Your task to perform on an android device: check data usage Image 0: 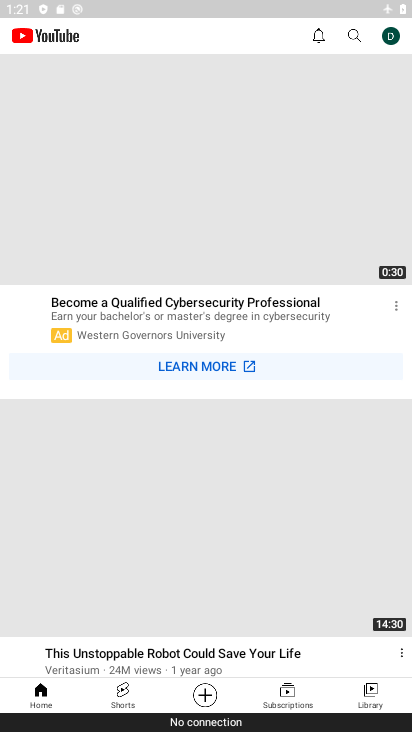
Step 0: press home button
Your task to perform on an android device: check data usage Image 1: 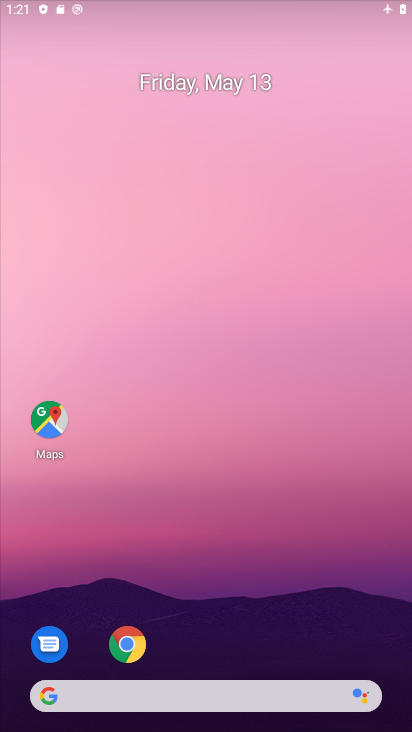
Step 1: drag from (231, 645) to (214, 211)
Your task to perform on an android device: check data usage Image 2: 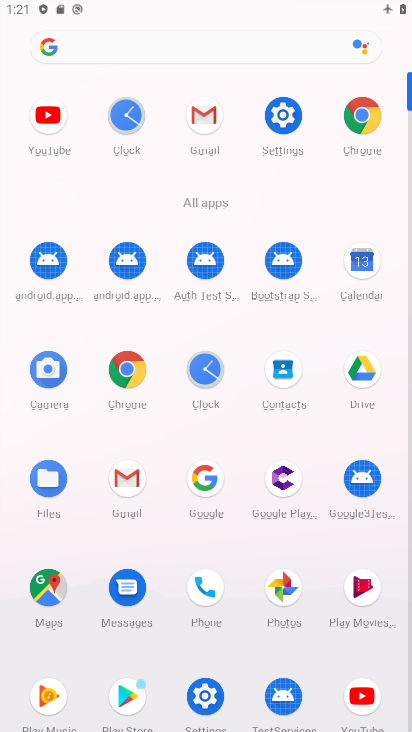
Step 2: click (283, 115)
Your task to perform on an android device: check data usage Image 3: 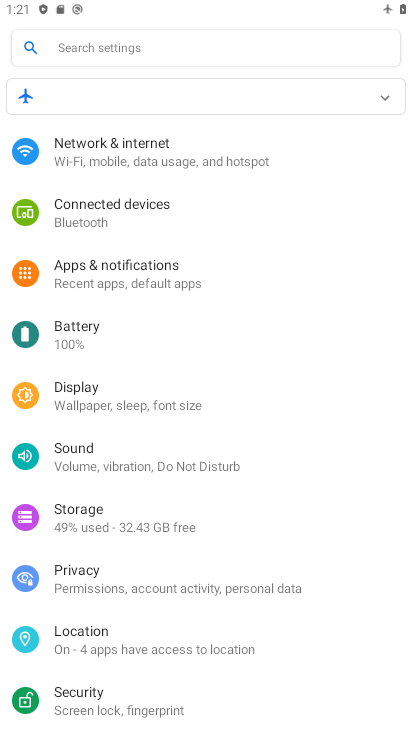
Step 3: click (147, 169)
Your task to perform on an android device: check data usage Image 4: 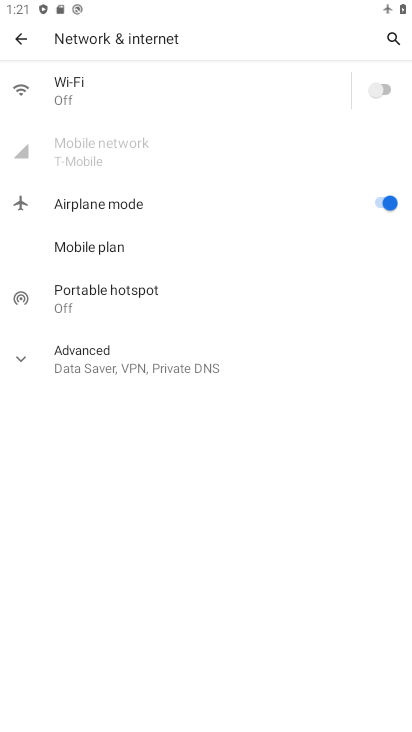
Step 4: click (146, 90)
Your task to perform on an android device: check data usage Image 5: 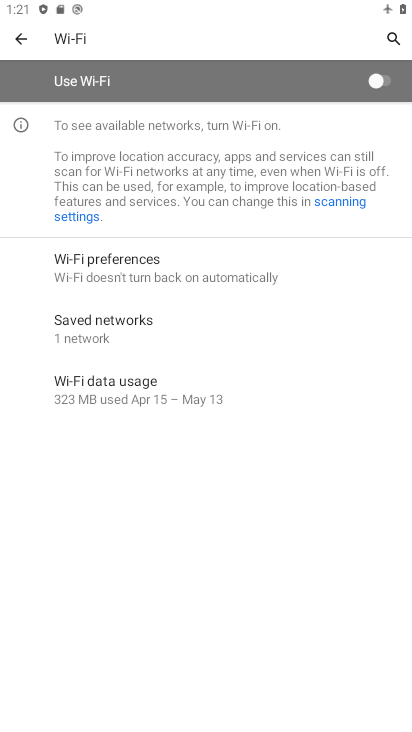
Step 5: click (154, 385)
Your task to perform on an android device: check data usage Image 6: 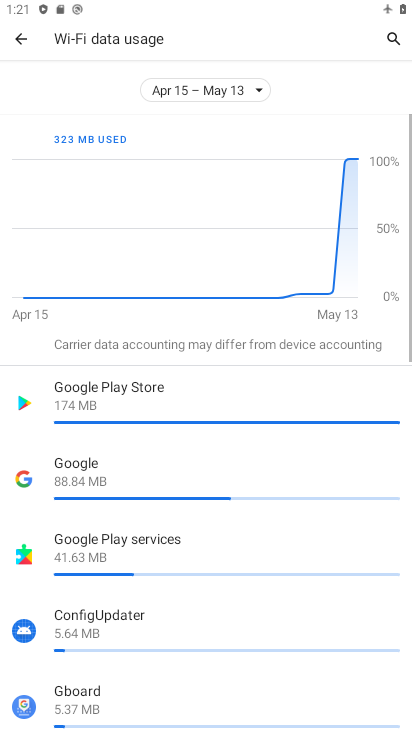
Step 6: task complete